Your task to perform on an android device: open chrome privacy settings Image 0: 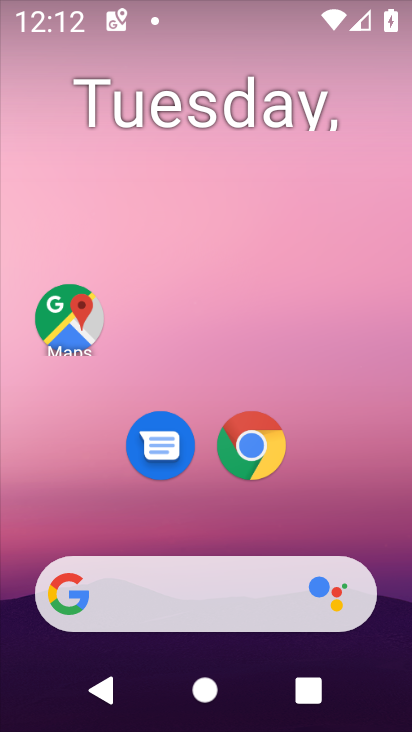
Step 0: drag from (397, 536) to (379, 233)
Your task to perform on an android device: open chrome privacy settings Image 1: 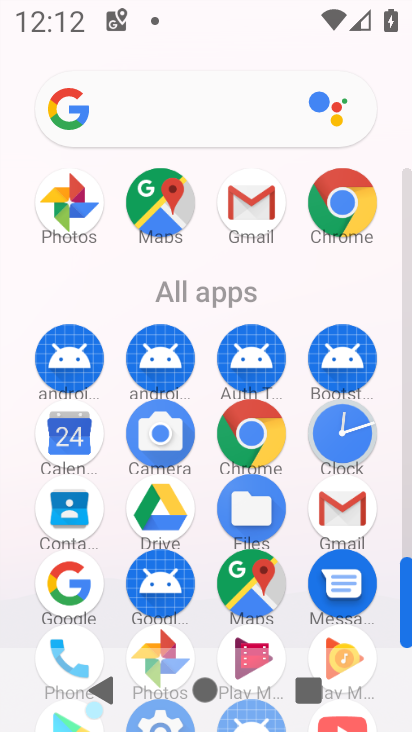
Step 1: click (264, 455)
Your task to perform on an android device: open chrome privacy settings Image 2: 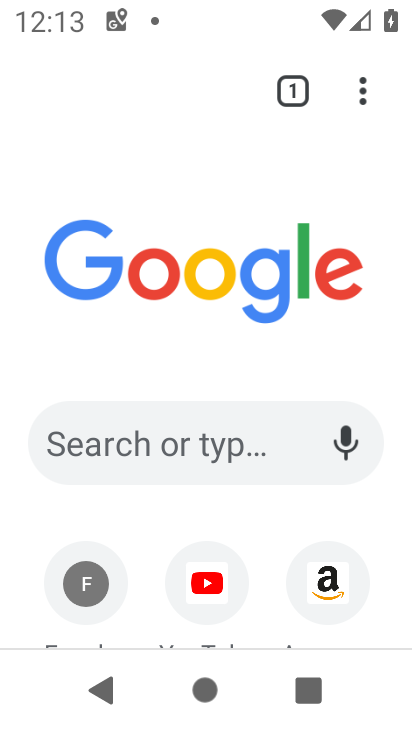
Step 2: click (362, 96)
Your task to perform on an android device: open chrome privacy settings Image 3: 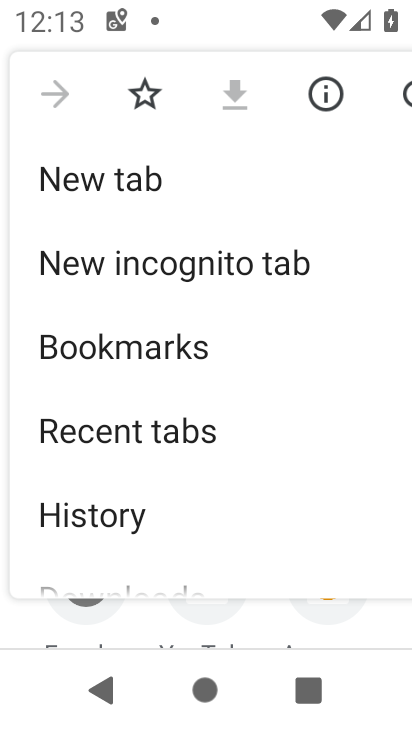
Step 3: drag from (365, 491) to (369, 392)
Your task to perform on an android device: open chrome privacy settings Image 4: 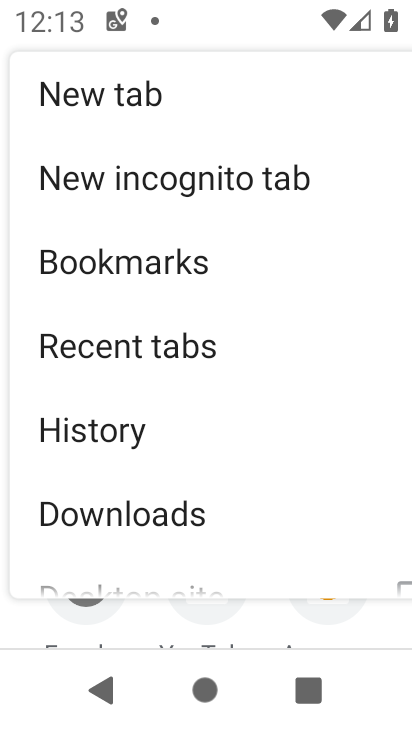
Step 4: drag from (369, 531) to (371, 415)
Your task to perform on an android device: open chrome privacy settings Image 5: 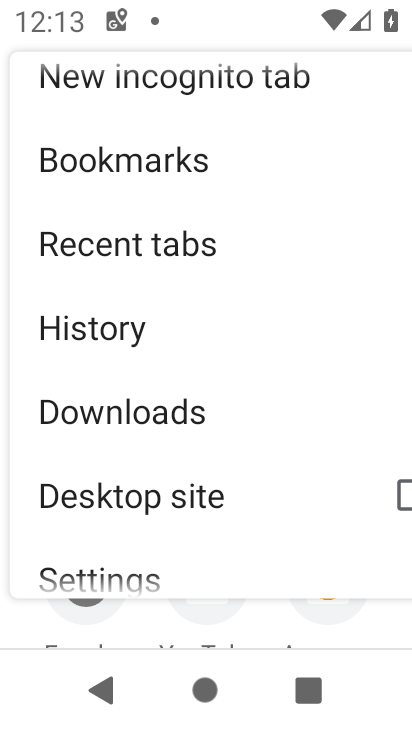
Step 5: drag from (324, 536) to (327, 402)
Your task to perform on an android device: open chrome privacy settings Image 6: 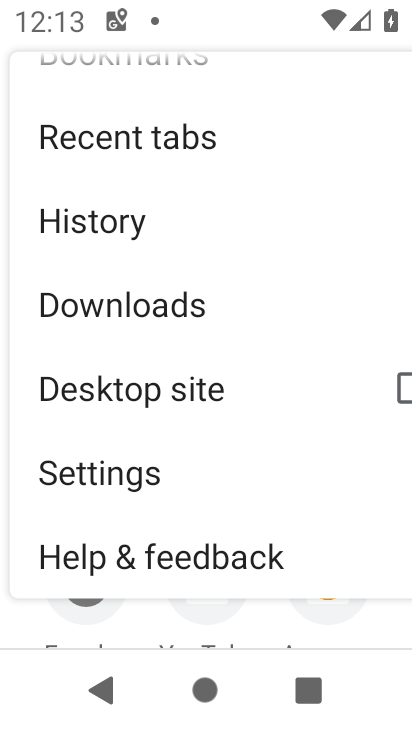
Step 6: drag from (348, 519) to (335, 358)
Your task to perform on an android device: open chrome privacy settings Image 7: 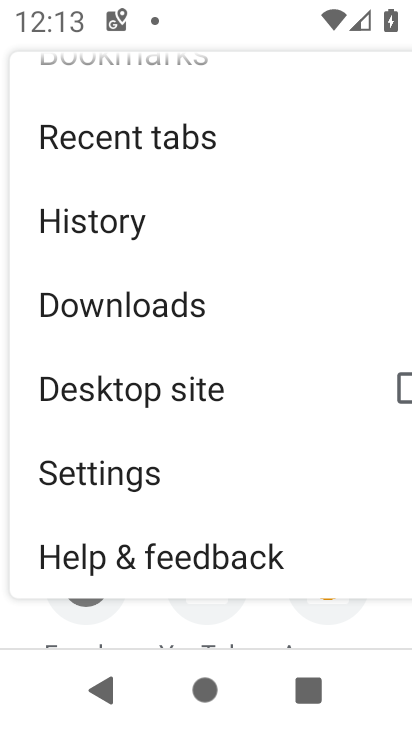
Step 7: drag from (317, 217) to (311, 321)
Your task to perform on an android device: open chrome privacy settings Image 8: 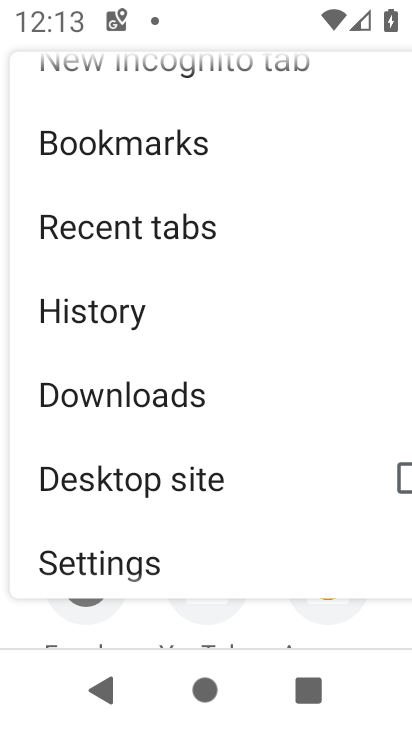
Step 8: drag from (321, 226) to (314, 351)
Your task to perform on an android device: open chrome privacy settings Image 9: 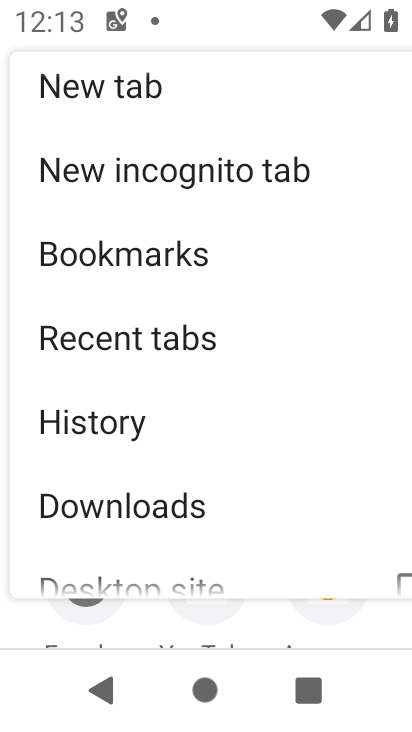
Step 9: drag from (339, 250) to (336, 352)
Your task to perform on an android device: open chrome privacy settings Image 10: 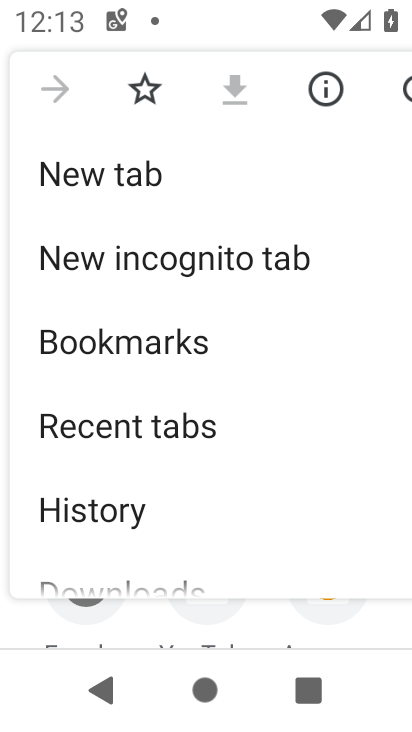
Step 10: drag from (349, 204) to (358, 330)
Your task to perform on an android device: open chrome privacy settings Image 11: 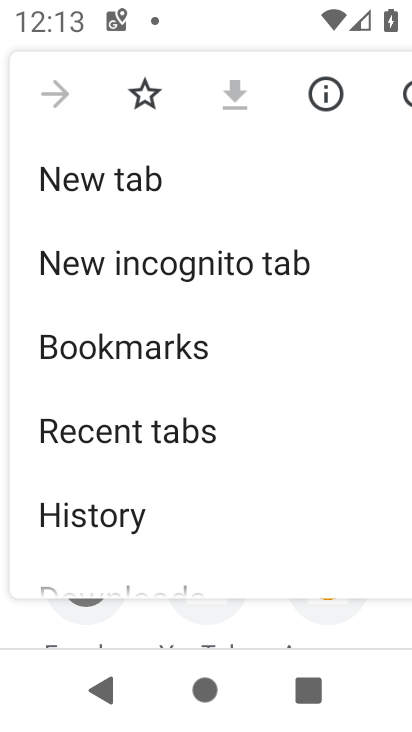
Step 11: drag from (372, 454) to (360, 367)
Your task to perform on an android device: open chrome privacy settings Image 12: 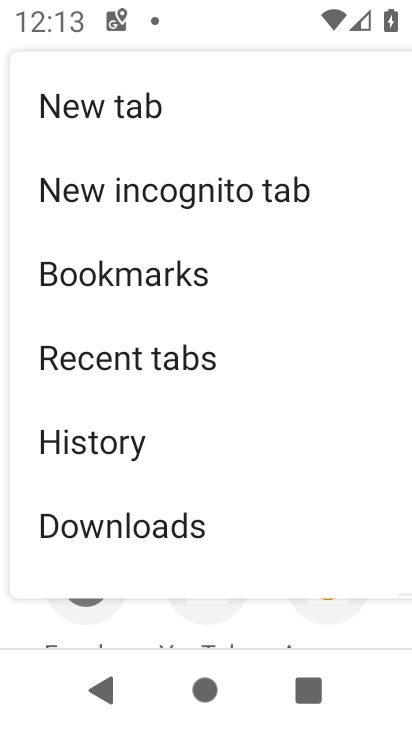
Step 12: drag from (350, 490) to (334, 387)
Your task to perform on an android device: open chrome privacy settings Image 13: 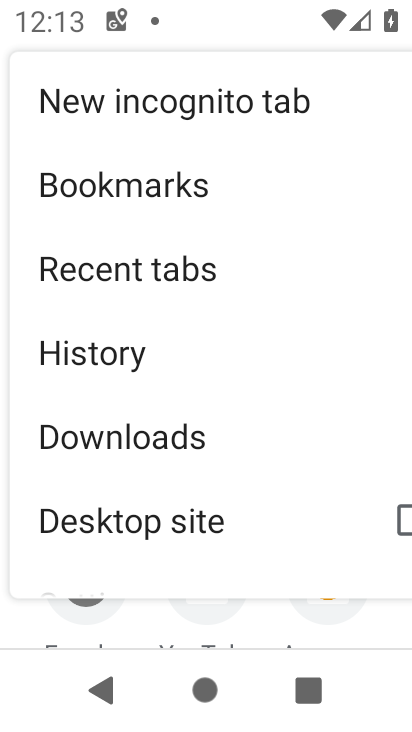
Step 13: drag from (315, 531) to (314, 455)
Your task to perform on an android device: open chrome privacy settings Image 14: 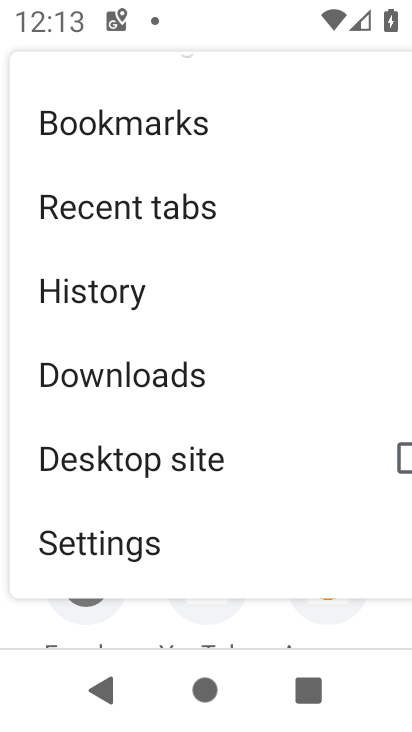
Step 14: click (215, 552)
Your task to perform on an android device: open chrome privacy settings Image 15: 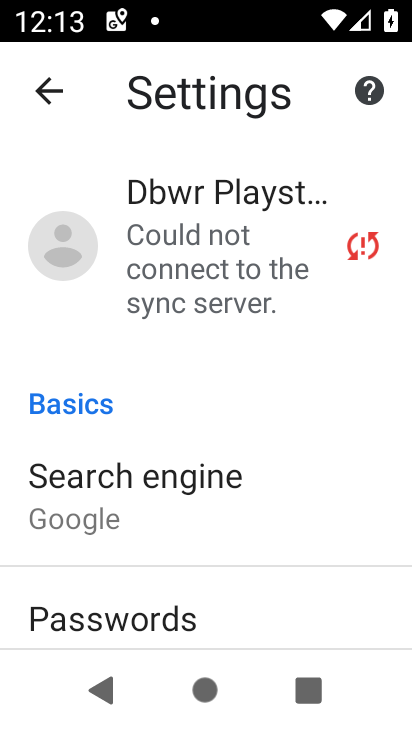
Step 15: drag from (361, 613) to (368, 516)
Your task to perform on an android device: open chrome privacy settings Image 16: 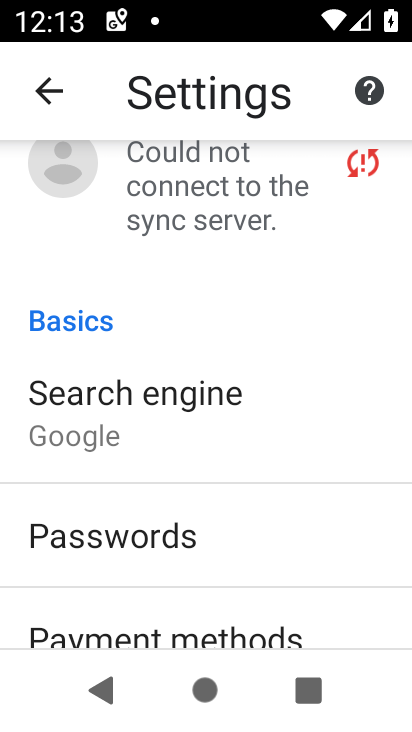
Step 16: drag from (360, 612) to (362, 516)
Your task to perform on an android device: open chrome privacy settings Image 17: 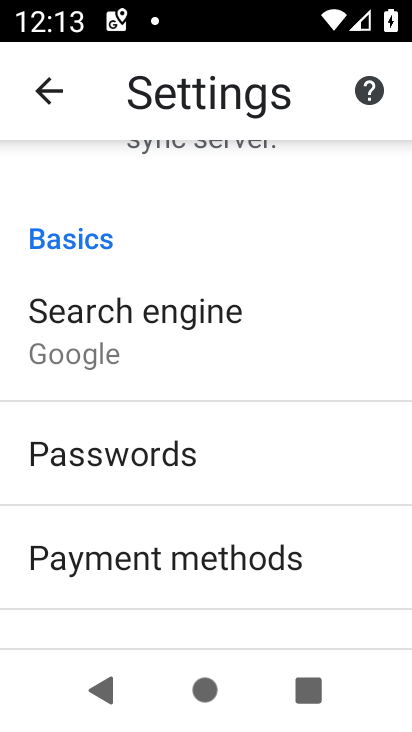
Step 17: drag from (356, 609) to (342, 497)
Your task to perform on an android device: open chrome privacy settings Image 18: 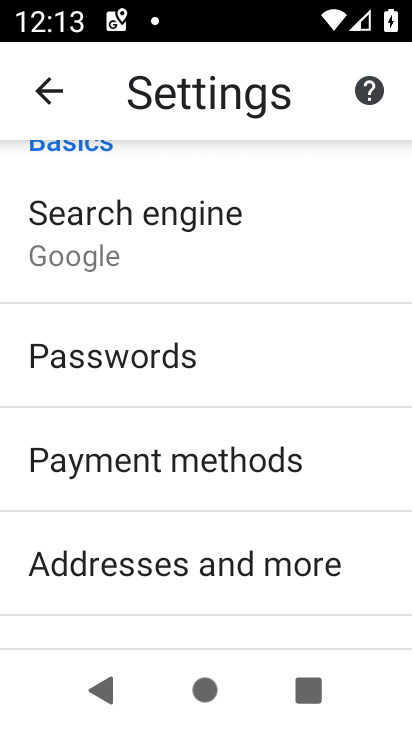
Step 18: drag from (353, 622) to (349, 498)
Your task to perform on an android device: open chrome privacy settings Image 19: 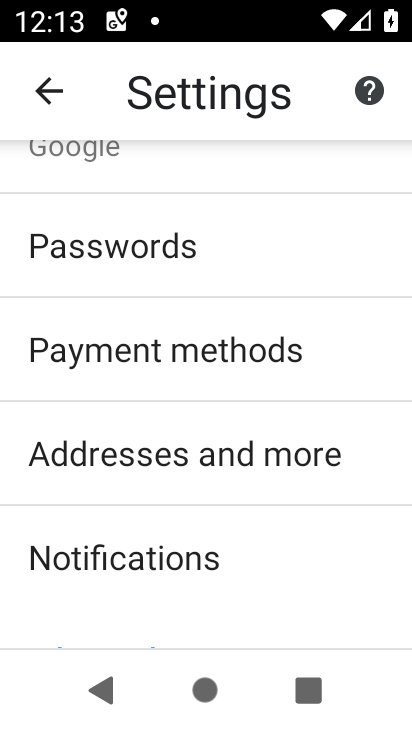
Step 19: drag from (375, 612) to (382, 504)
Your task to perform on an android device: open chrome privacy settings Image 20: 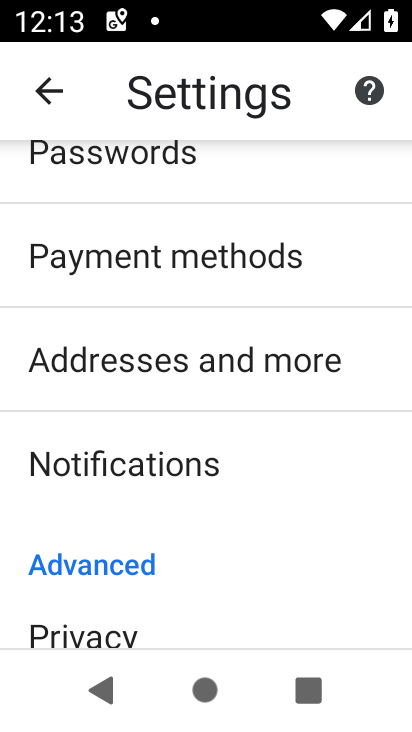
Step 20: drag from (350, 609) to (334, 486)
Your task to perform on an android device: open chrome privacy settings Image 21: 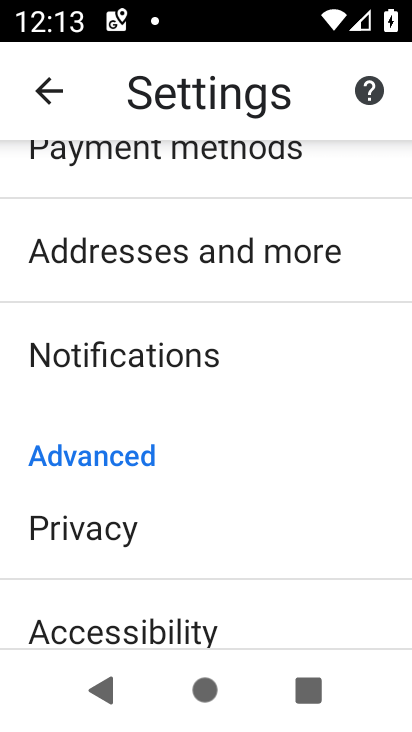
Step 21: drag from (336, 577) to (334, 462)
Your task to perform on an android device: open chrome privacy settings Image 22: 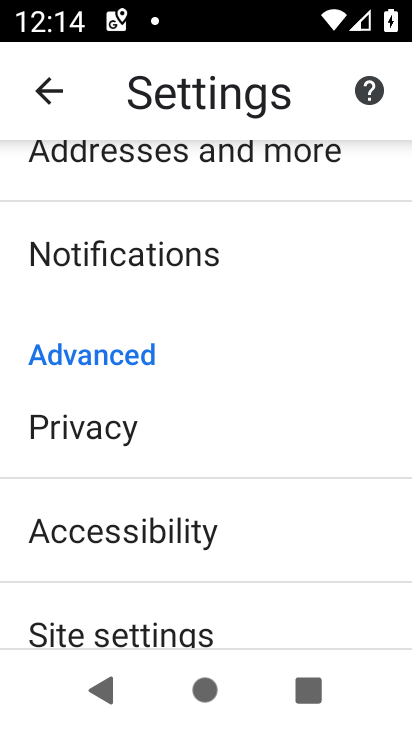
Step 22: click (211, 444)
Your task to perform on an android device: open chrome privacy settings Image 23: 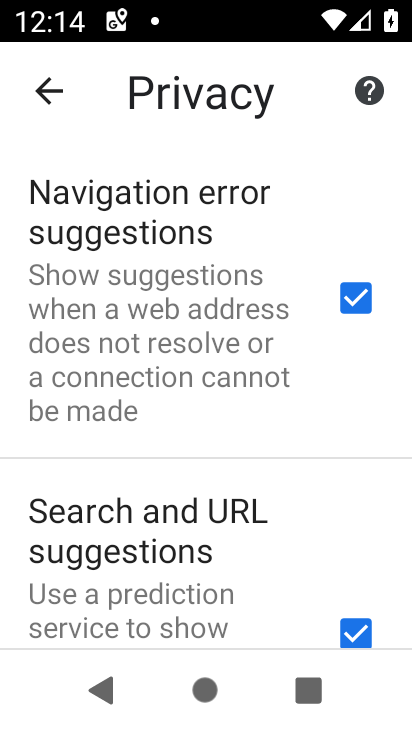
Step 23: task complete